Your task to perform on an android device: find which apps use the phone's location Image 0: 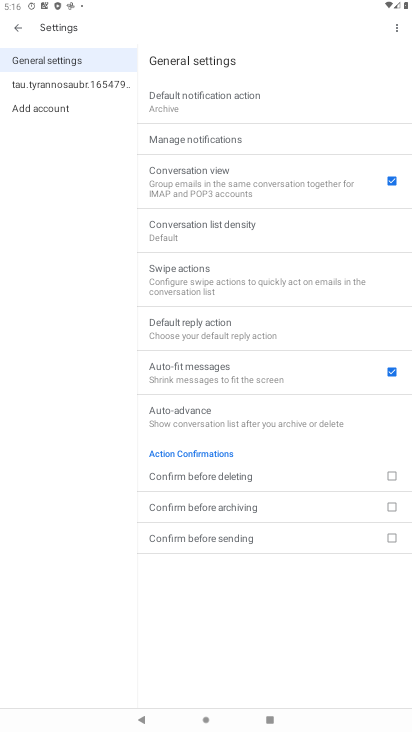
Step 0: press home button
Your task to perform on an android device: find which apps use the phone's location Image 1: 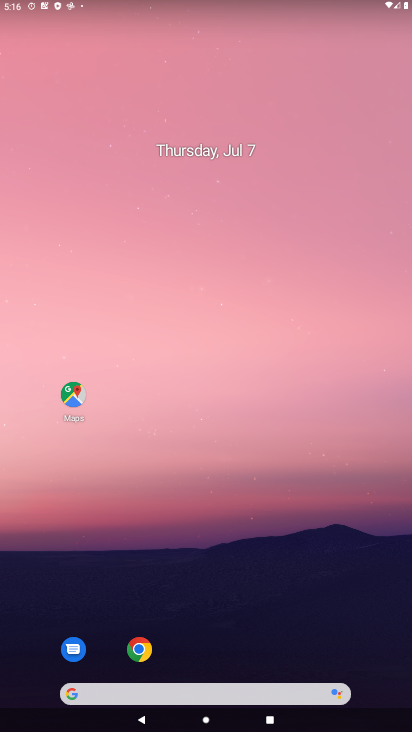
Step 1: drag from (378, 687) to (231, 5)
Your task to perform on an android device: find which apps use the phone's location Image 2: 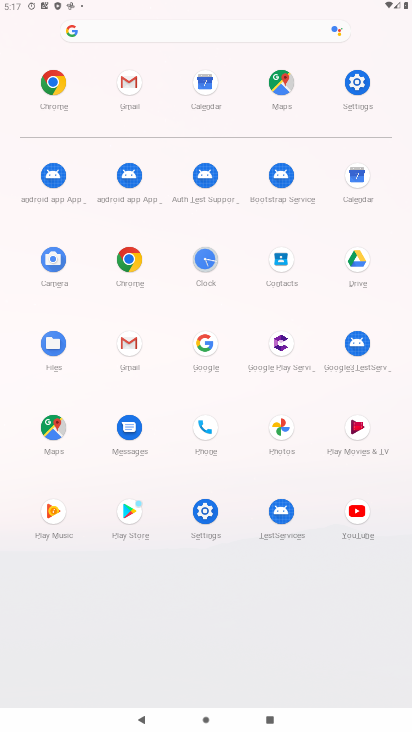
Step 2: click (361, 96)
Your task to perform on an android device: find which apps use the phone's location Image 3: 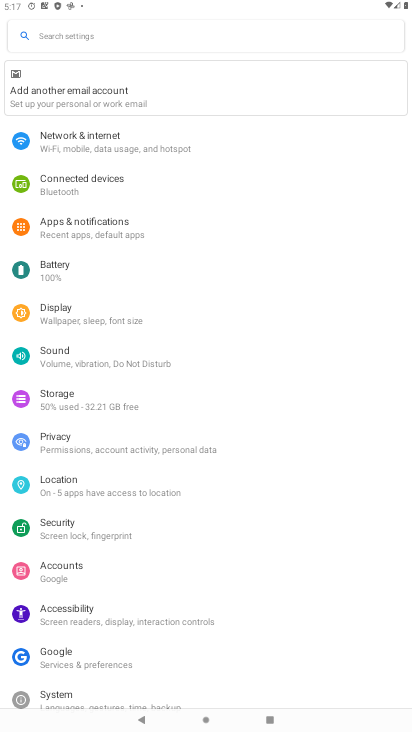
Step 3: click (79, 483)
Your task to perform on an android device: find which apps use the phone's location Image 4: 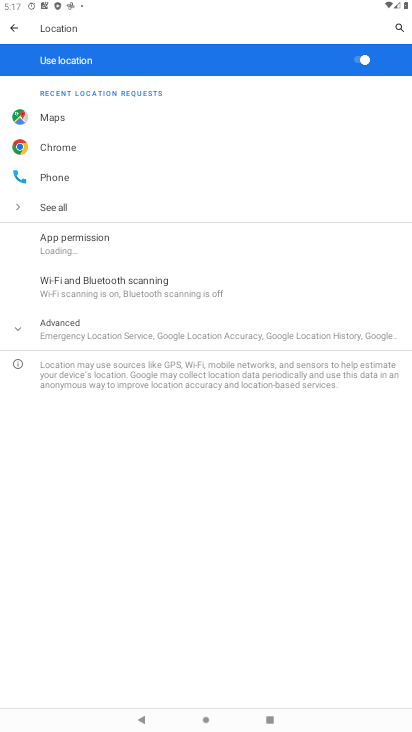
Step 4: click (109, 251)
Your task to perform on an android device: find which apps use the phone's location Image 5: 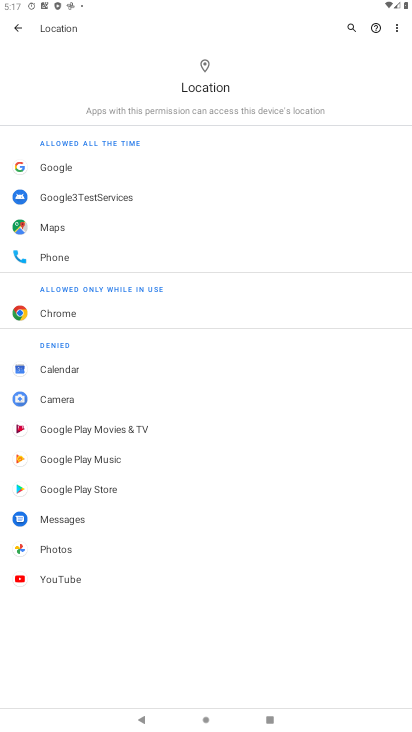
Step 5: click (51, 264)
Your task to perform on an android device: find which apps use the phone's location Image 6: 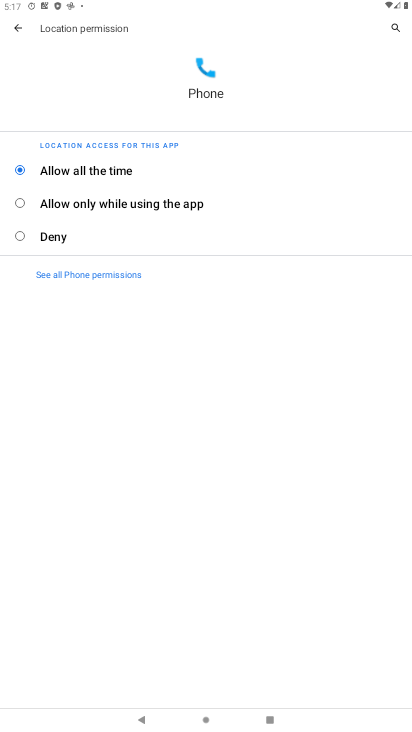
Step 6: task complete